Your task to perform on an android device: Search for Mexican restaurants on Maps Image 0: 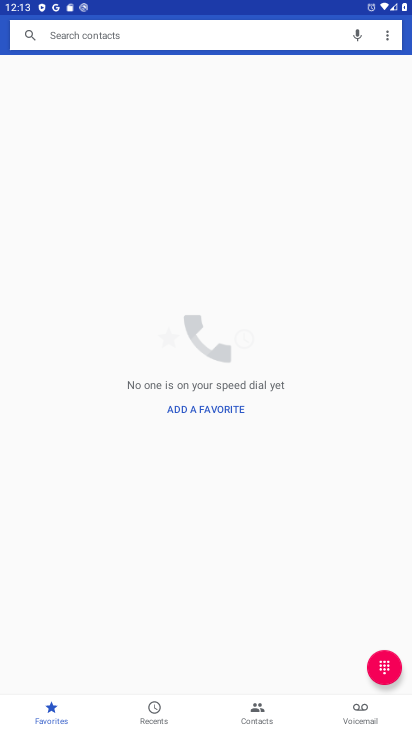
Step 0: press home button
Your task to perform on an android device: Search for Mexican restaurants on Maps Image 1: 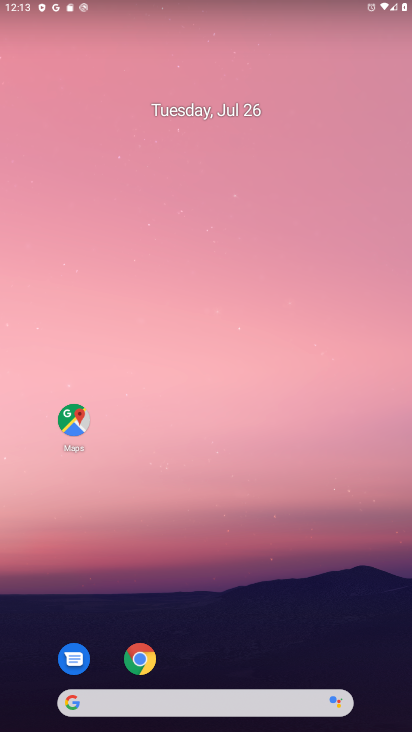
Step 1: click (69, 418)
Your task to perform on an android device: Search for Mexican restaurants on Maps Image 2: 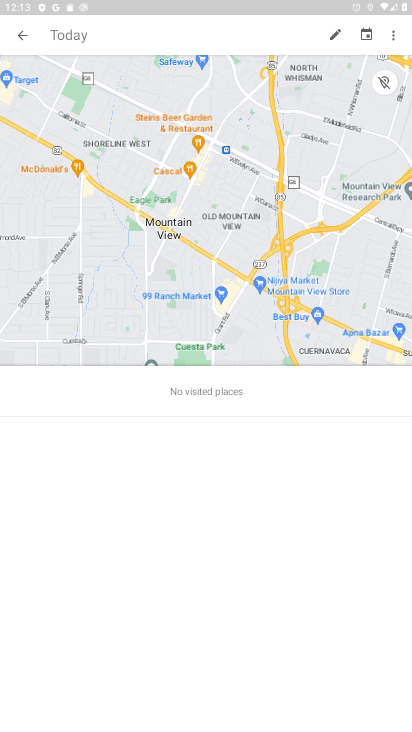
Step 2: click (20, 33)
Your task to perform on an android device: Search for Mexican restaurants on Maps Image 3: 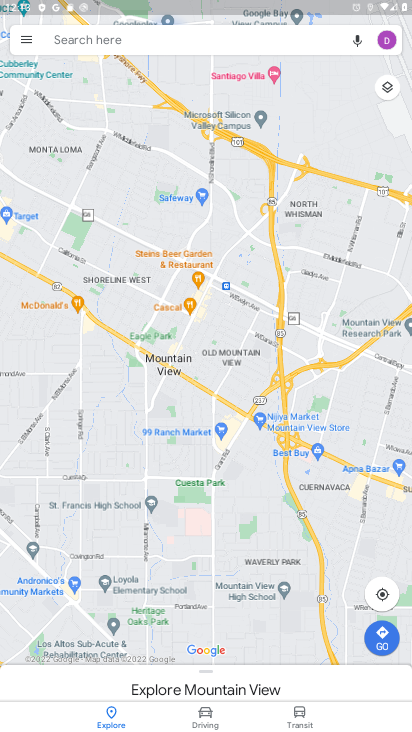
Step 3: click (108, 40)
Your task to perform on an android device: Search for Mexican restaurants on Maps Image 4: 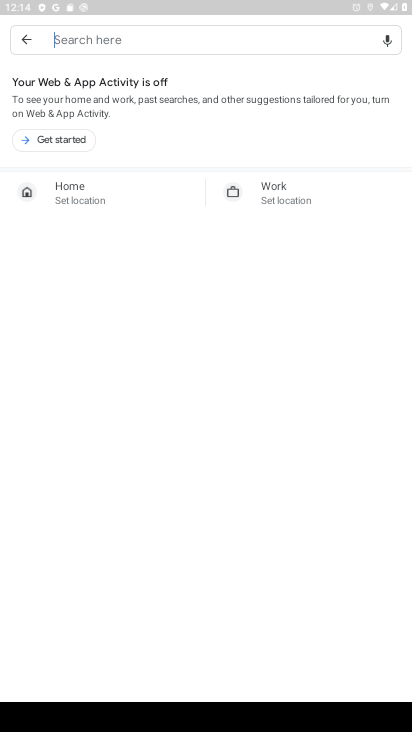
Step 4: type "mexican restaurants"
Your task to perform on an android device: Search for Mexican restaurants on Maps Image 5: 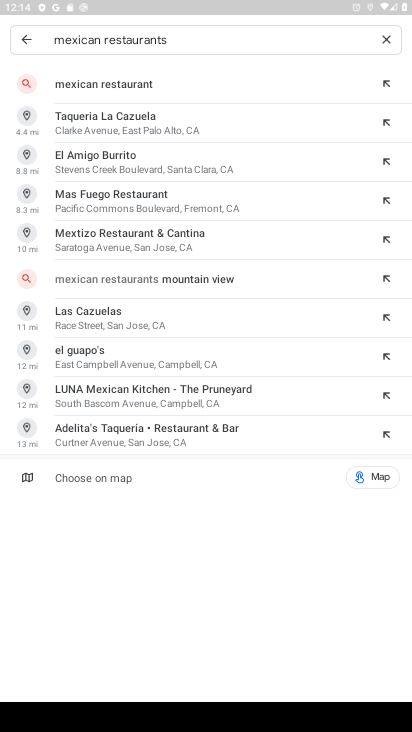
Step 5: click (113, 79)
Your task to perform on an android device: Search for Mexican restaurants on Maps Image 6: 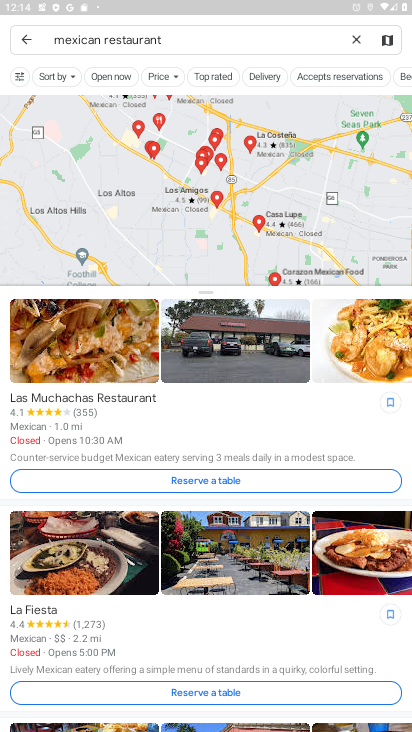
Step 6: task complete